Your task to perform on an android device: Open Google Image 0: 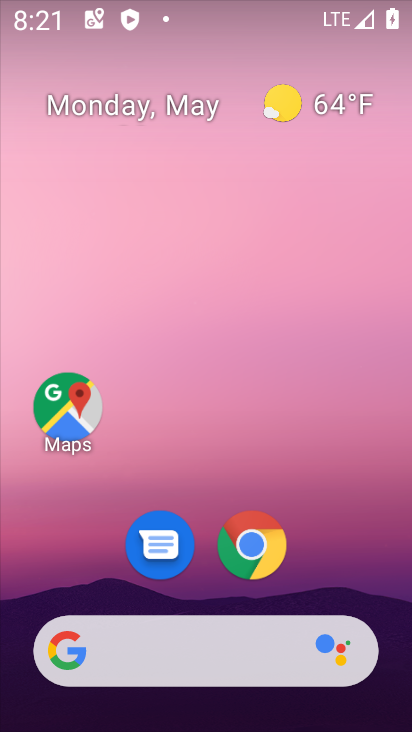
Step 0: drag from (176, 627) to (150, 186)
Your task to perform on an android device: Open Google Image 1: 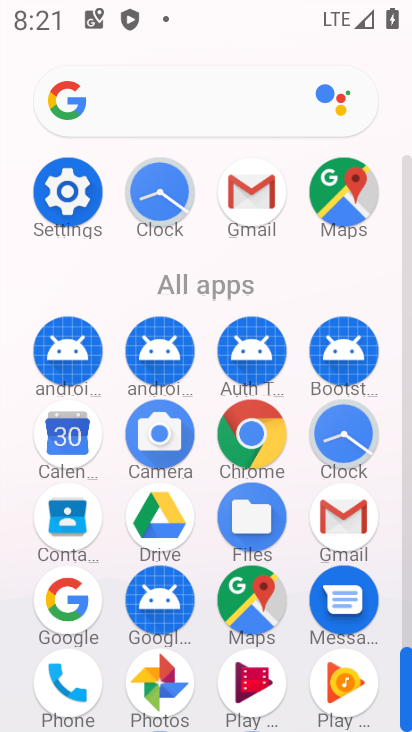
Step 1: click (63, 617)
Your task to perform on an android device: Open Google Image 2: 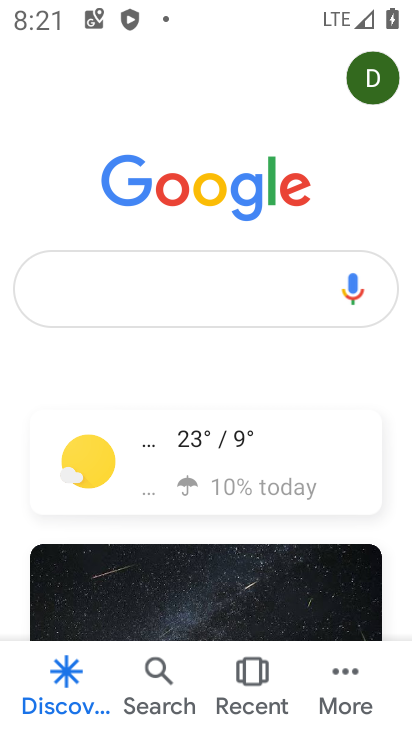
Step 2: task complete